Your task to perform on an android device: Turn off the flashlight Image 0: 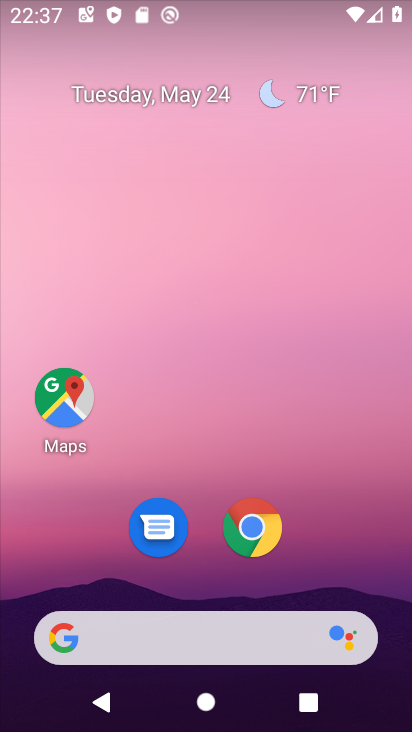
Step 0: drag from (198, 566) to (131, 0)
Your task to perform on an android device: Turn off the flashlight Image 1: 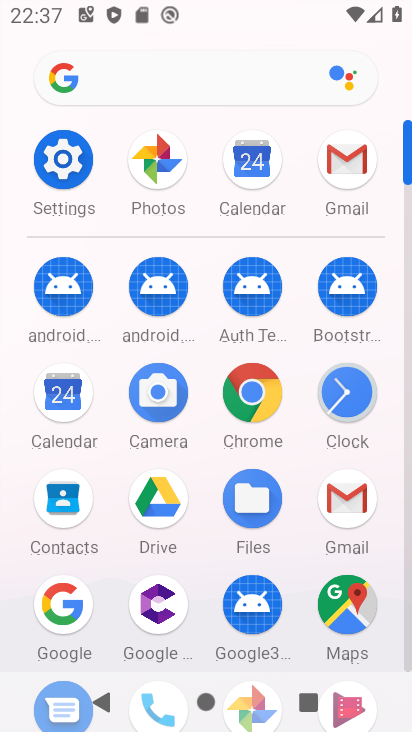
Step 1: click (55, 158)
Your task to perform on an android device: Turn off the flashlight Image 2: 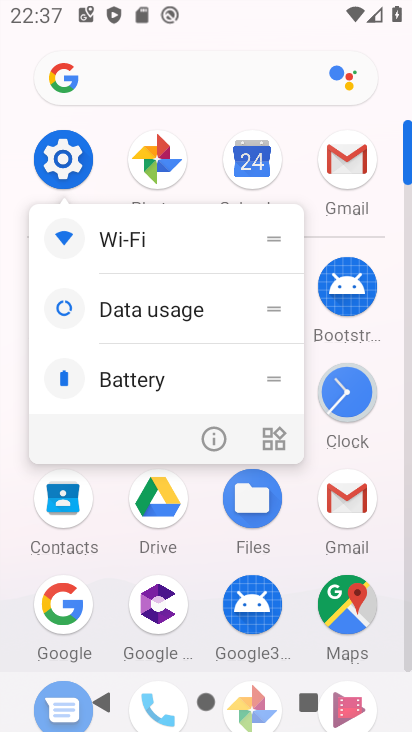
Step 2: click (66, 157)
Your task to perform on an android device: Turn off the flashlight Image 3: 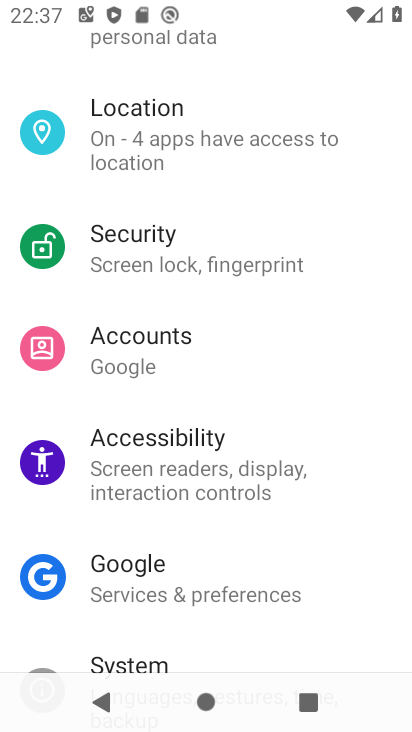
Step 3: task complete